Your task to perform on an android device: Open wifi settings Image 0: 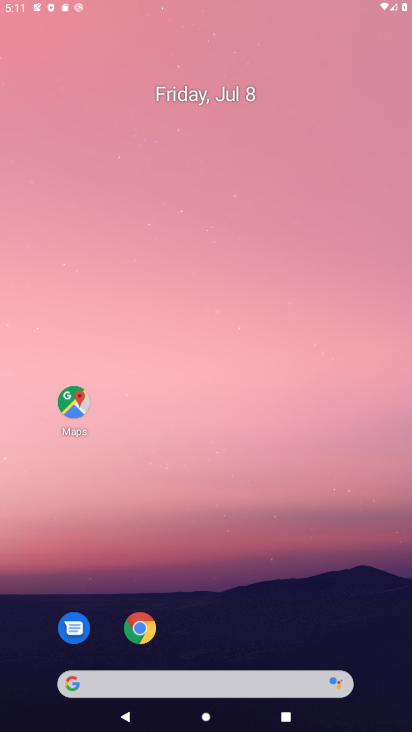
Step 0: press home button
Your task to perform on an android device: Open wifi settings Image 1: 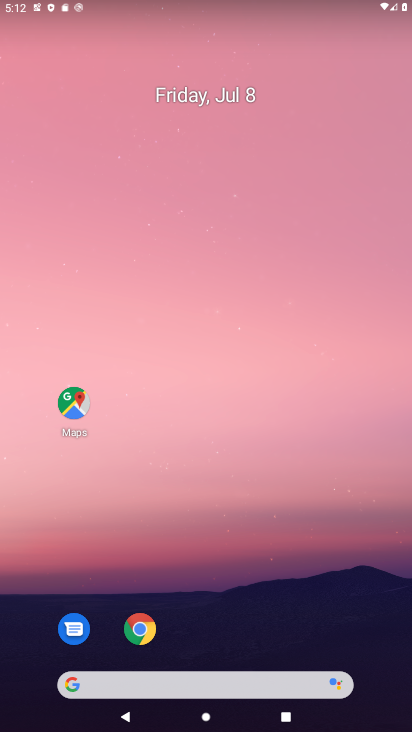
Step 1: drag from (315, 579) to (205, 143)
Your task to perform on an android device: Open wifi settings Image 2: 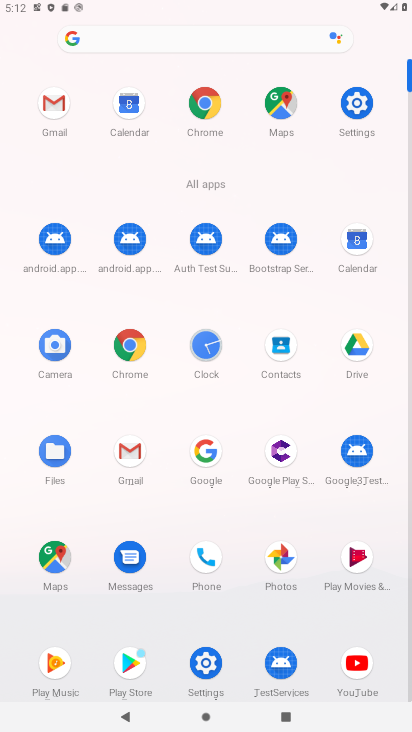
Step 2: click (352, 104)
Your task to perform on an android device: Open wifi settings Image 3: 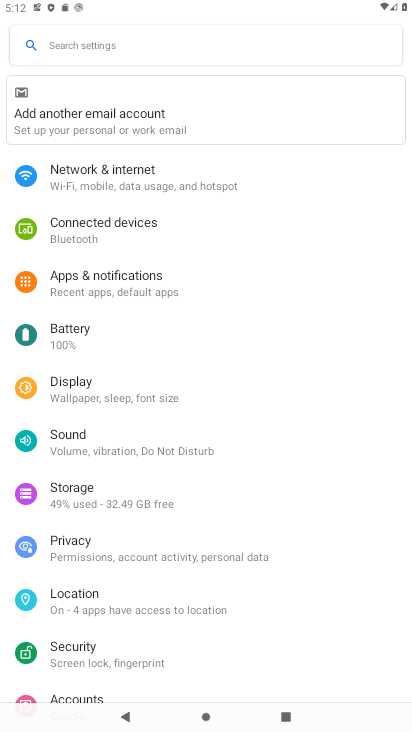
Step 3: click (84, 167)
Your task to perform on an android device: Open wifi settings Image 4: 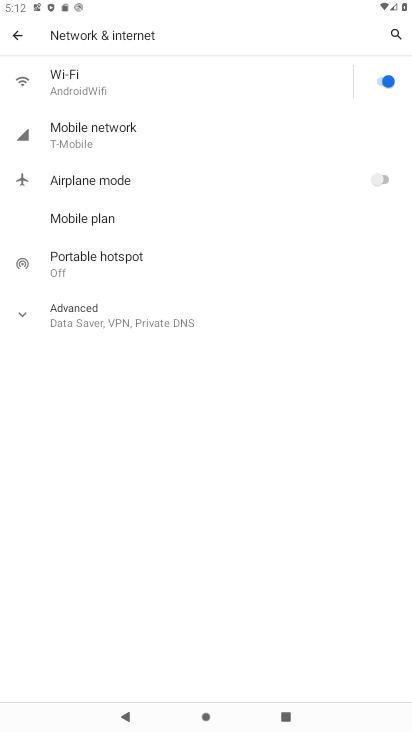
Step 4: click (67, 79)
Your task to perform on an android device: Open wifi settings Image 5: 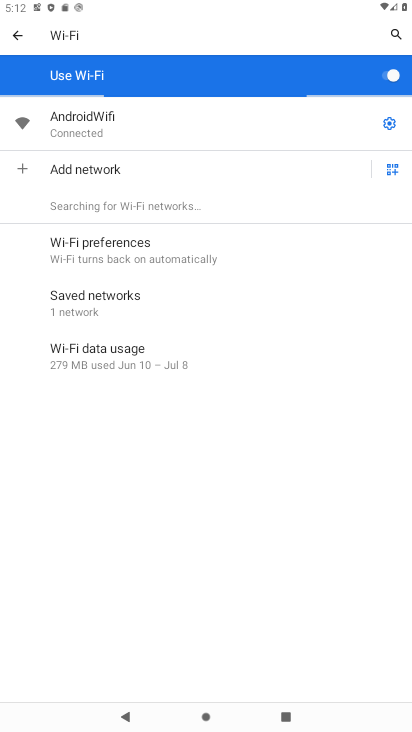
Step 5: task complete